Your task to perform on an android device: move a message to another label in the gmail app Image 0: 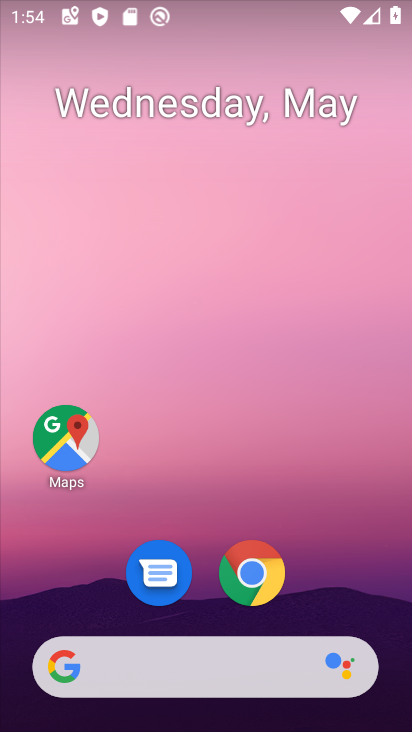
Step 0: drag from (350, 579) to (309, 21)
Your task to perform on an android device: move a message to another label in the gmail app Image 1: 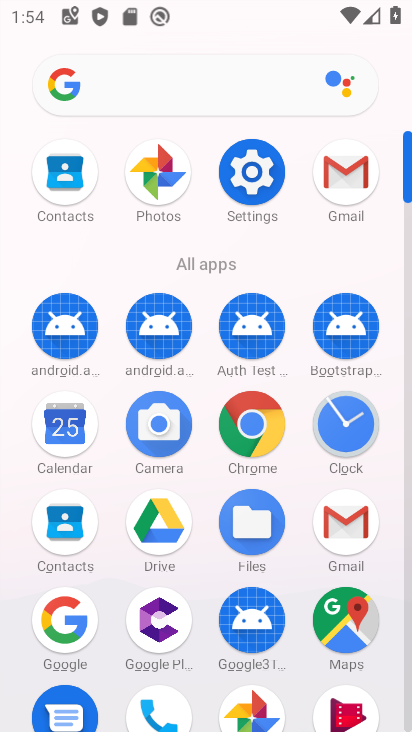
Step 1: click (335, 168)
Your task to perform on an android device: move a message to another label in the gmail app Image 2: 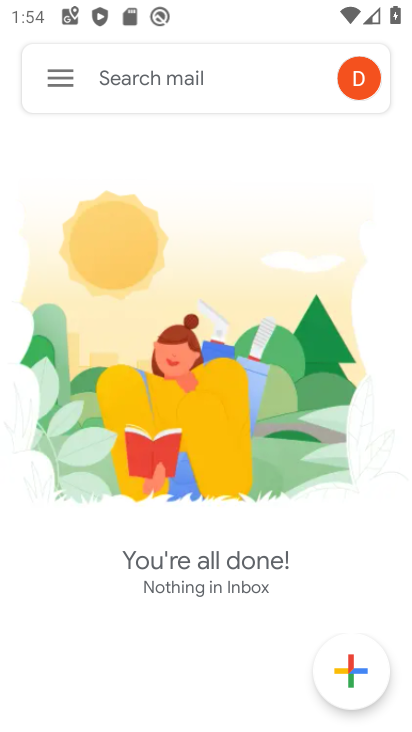
Step 2: click (71, 74)
Your task to perform on an android device: move a message to another label in the gmail app Image 3: 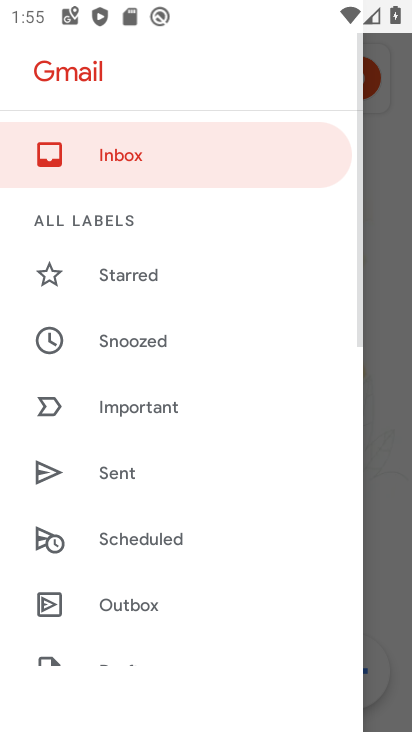
Step 3: drag from (232, 647) to (236, 177)
Your task to perform on an android device: move a message to another label in the gmail app Image 4: 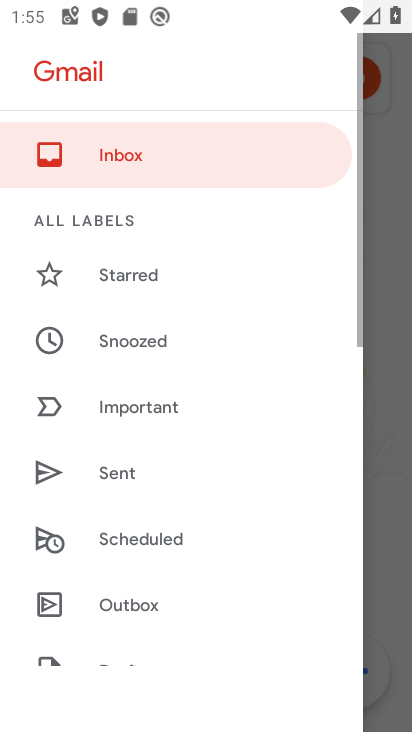
Step 4: drag from (165, 505) to (157, 180)
Your task to perform on an android device: move a message to another label in the gmail app Image 5: 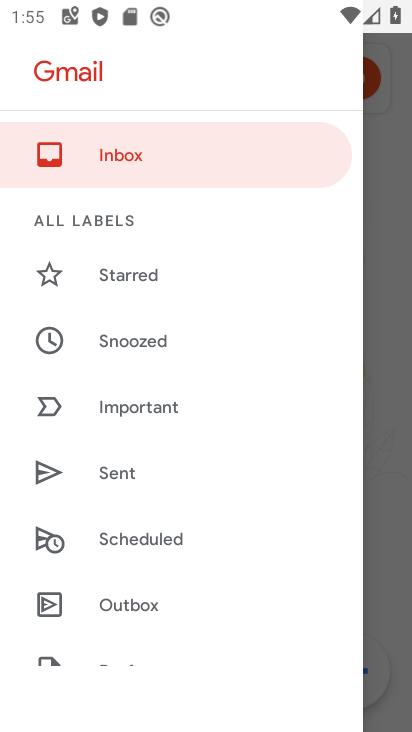
Step 5: drag from (113, 544) to (165, 115)
Your task to perform on an android device: move a message to another label in the gmail app Image 6: 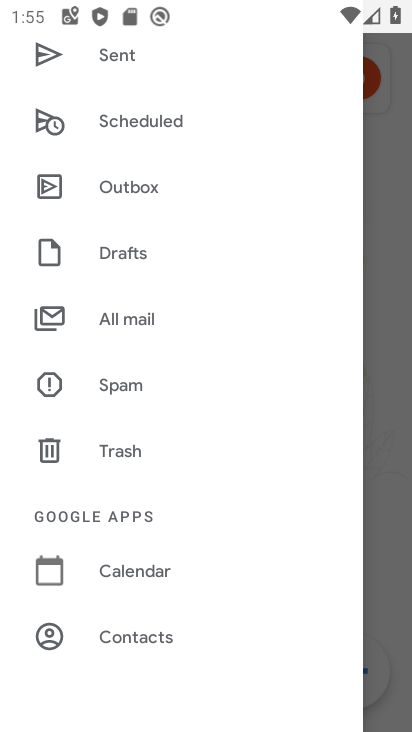
Step 6: click (138, 312)
Your task to perform on an android device: move a message to another label in the gmail app Image 7: 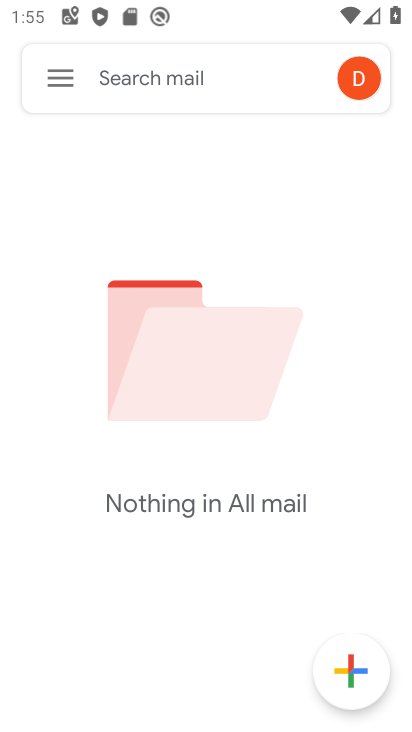
Step 7: task complete